Your task to perform on an android device: Open calendar and show me the fourth week of next month Image 0: 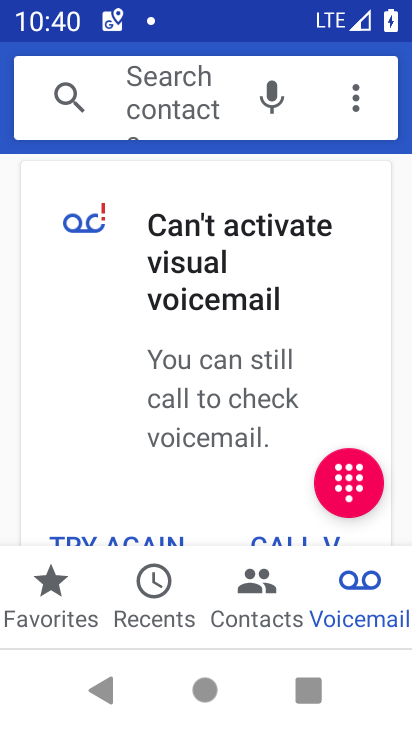
Step 0: press home button
Your task to perform on an android device: Open calendar and show me the fourth week of next month Image 1: 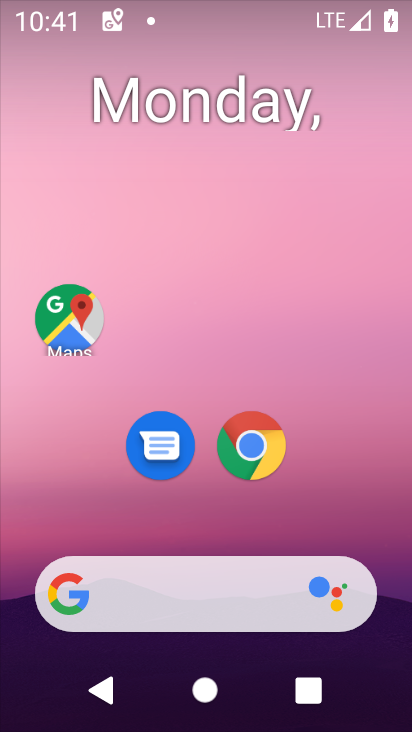
Step 1: drag from (260, 694) to (304, 26)
Your task to perform on an android device: Open calendar and show me the fourth week of next month Image 2: 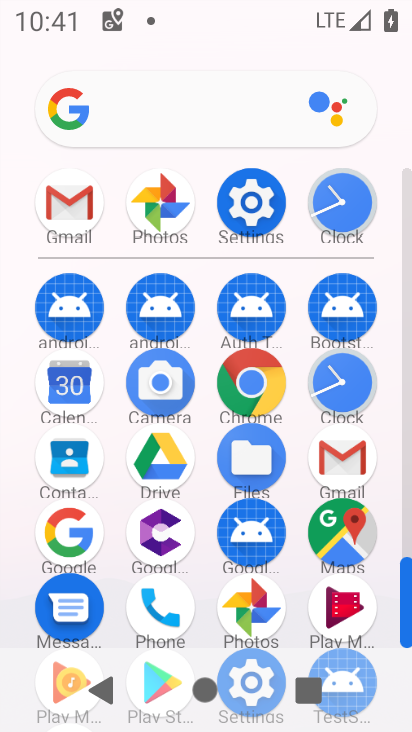
Step 2: click (72, 390)
Your task to perform on an android device: Open calendar and show me the fourth week of next month Image 3: 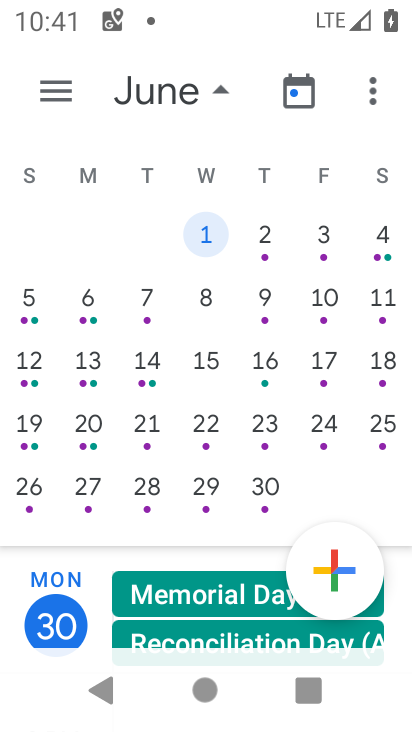
Step 3: click (41, 433)
Your task to perform on an android device: Open calendar and show me the fourth week of next month Image 4: 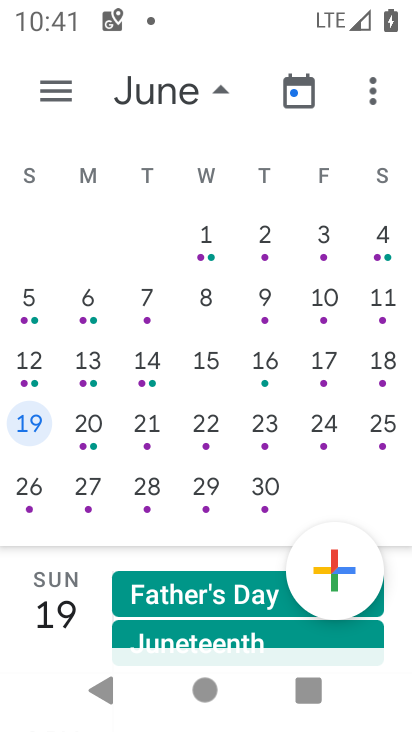
Step 4: task complete